Your task to perform on an android device: move an email to a new category in the gmail app Image 0: 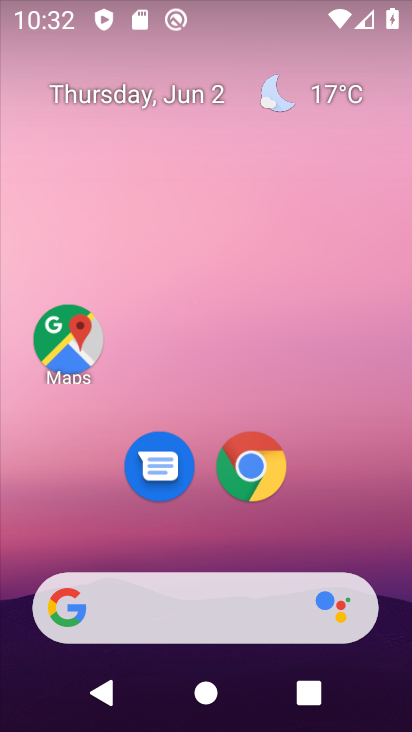
Step 0: press home button
Your task to perform on an android device: move an email to a new category in the gmail app Image 1: 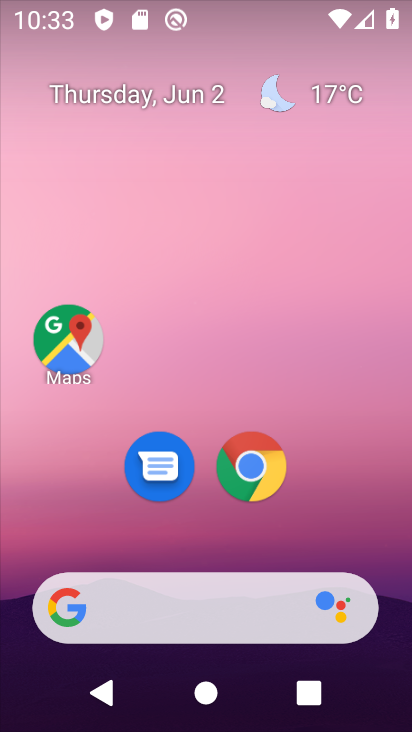
Step 1: drag from (311, 547) to (224, 52)
Your task to perform on an android device: move an email to a new category in the gmail app Image 2: 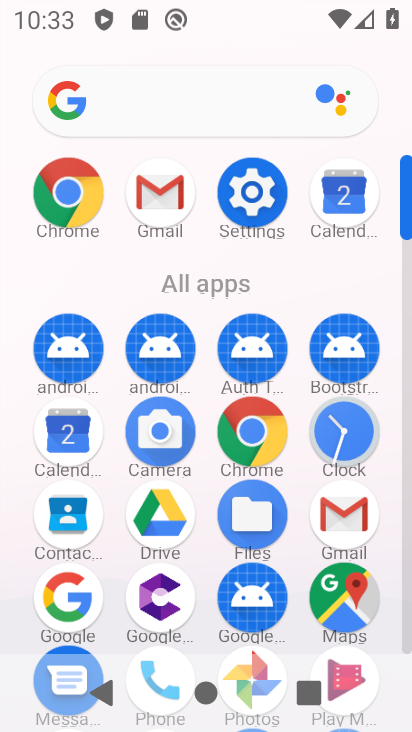
Step 2: click (163, 188)
Your task to perform on an android device: move an email to a new category in the gmail app Image 3: 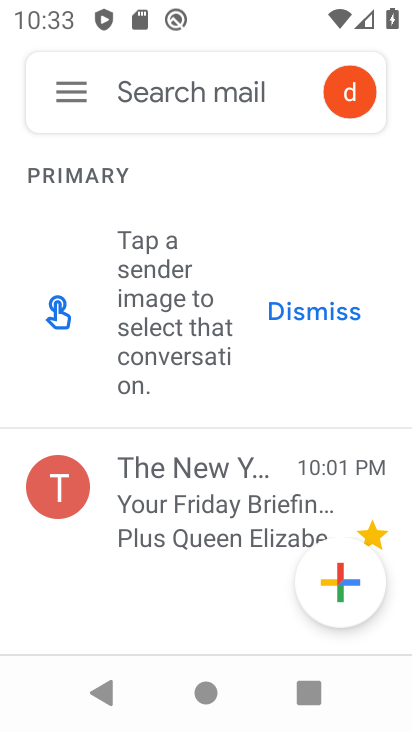
Step 3: click (62, 90)
Your task to perform on an android device: move an email to a new category in the gmail app Image 4: 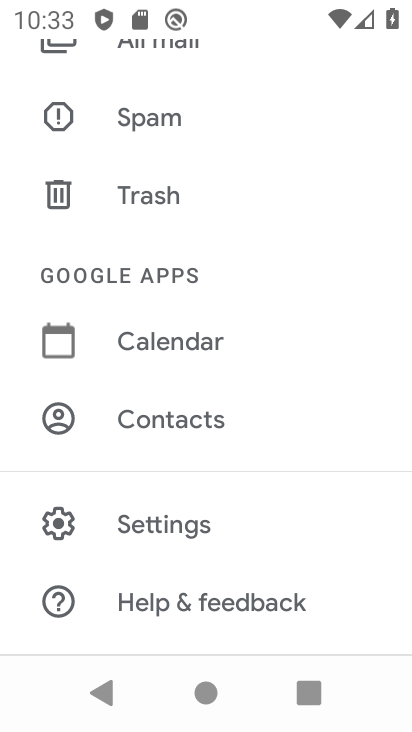
Step 4: drag from (235, 151) to (226, 485)
Your task to perform on an android device: move an email to a new category in the gmail app Image 5: 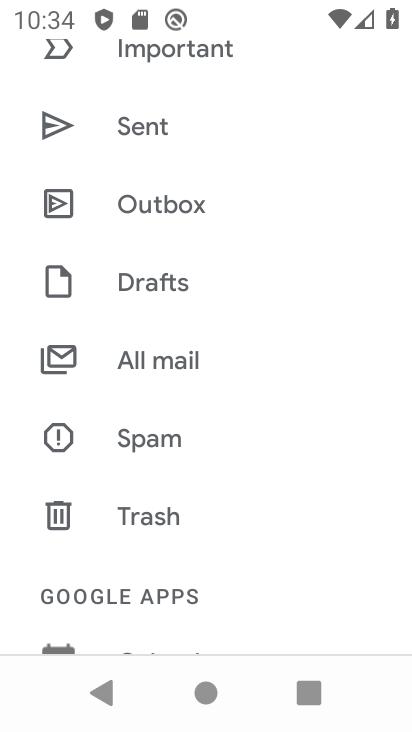
Step 5: click (155, 362)
Your task to perform on an android device: move an email to a new category in the gmail app Image 6: 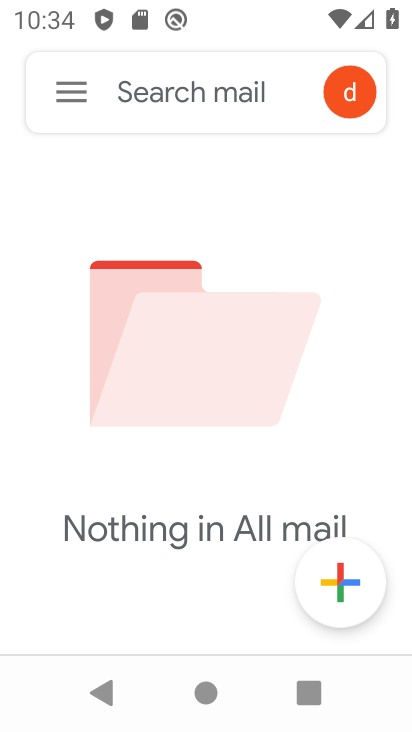
Step 6: click (77, 94)
Your task to perform on an android device: move an email to a new category in the gmail app Image 7: 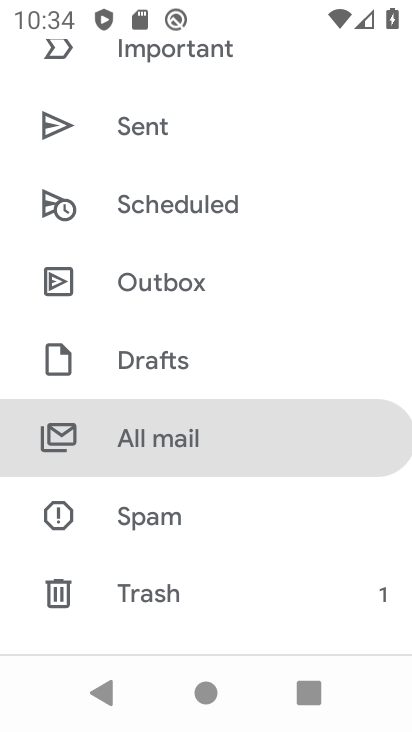
Step 7: task complete